Your task to perform on an android device: open chrome and create a bookmark for the current page Image 0: 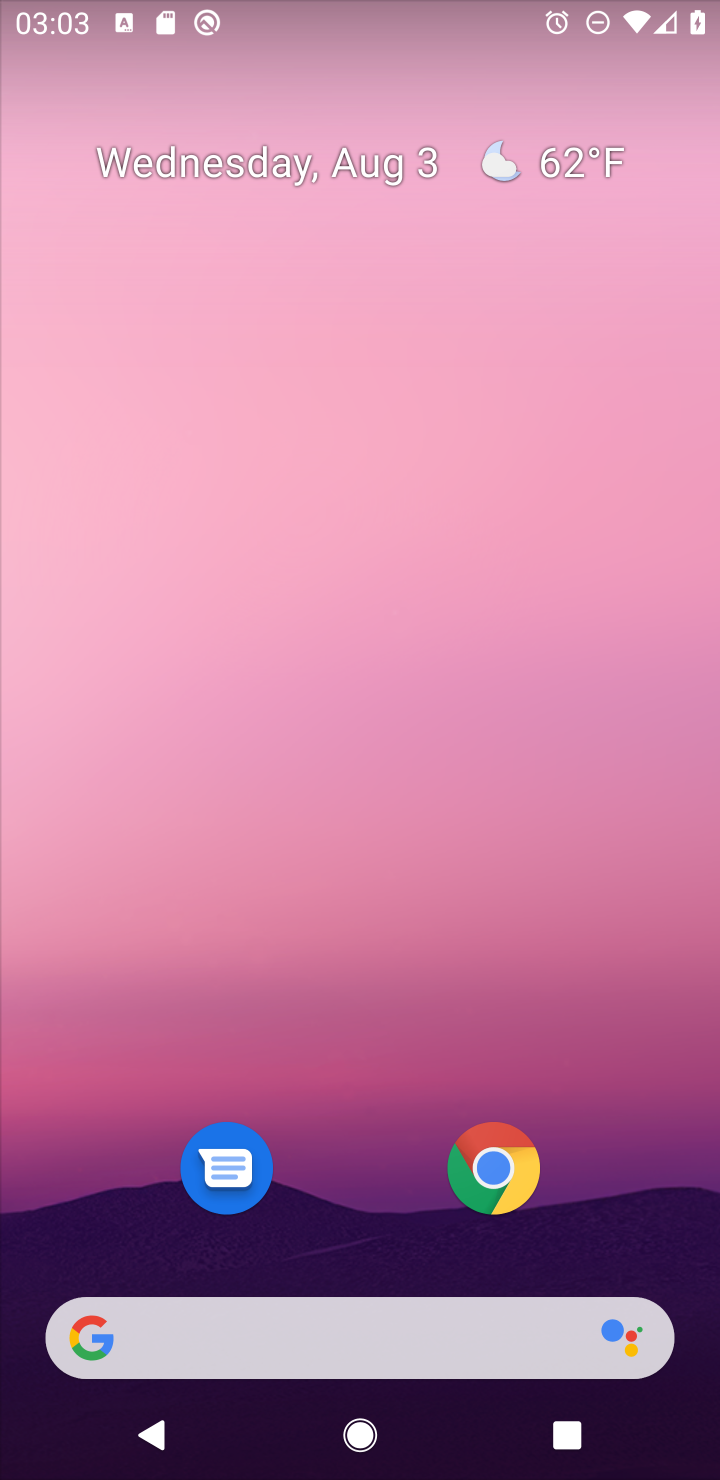
Step 0: click (501, 1165)
Your task to perform on an android device: open chrome and create a bookmark for the current page Image 1: 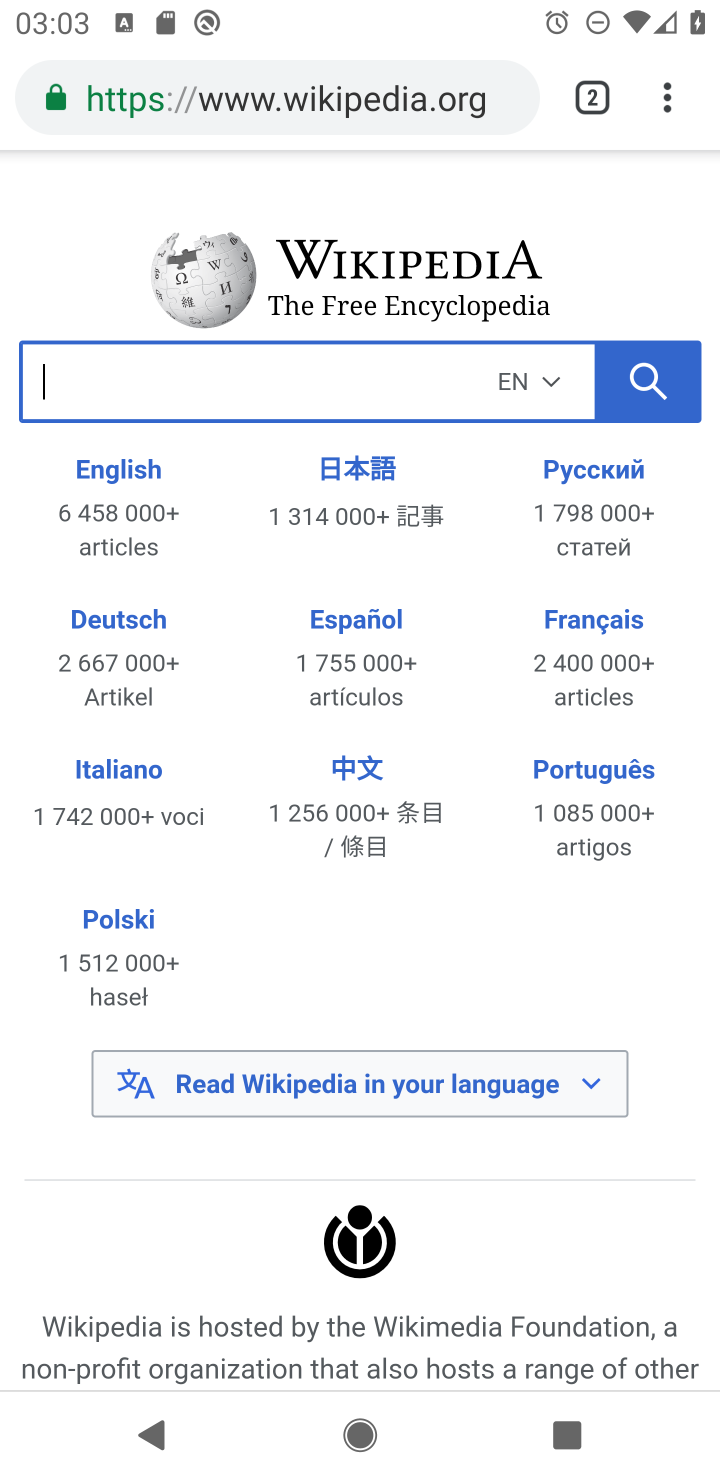
Step 1: click (664, 111)
Your task to perform on an android device: open chrome and create a bookmark for the current page Image 2: 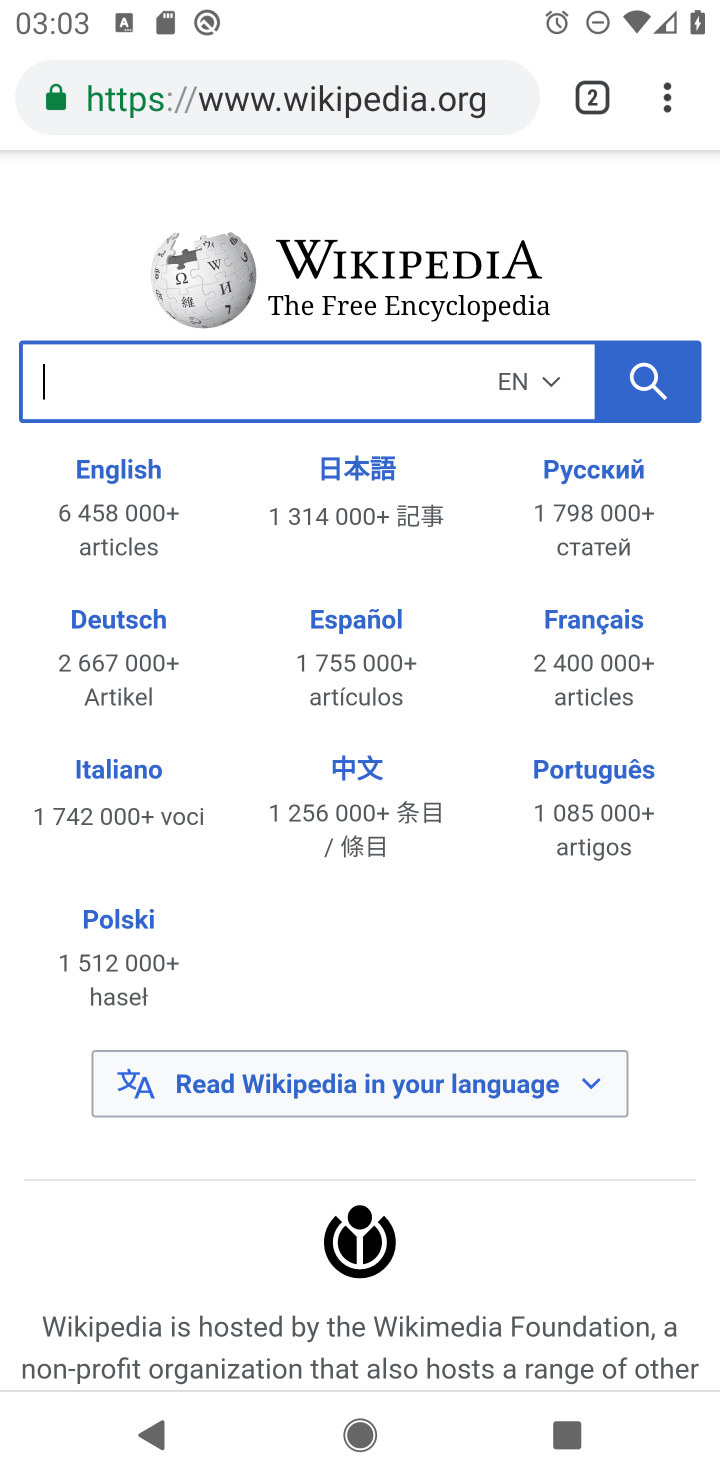
Step 2: click (657, 115)
Your task to perform on an android device: open chrome and create a bookmark for the current page Image 3: 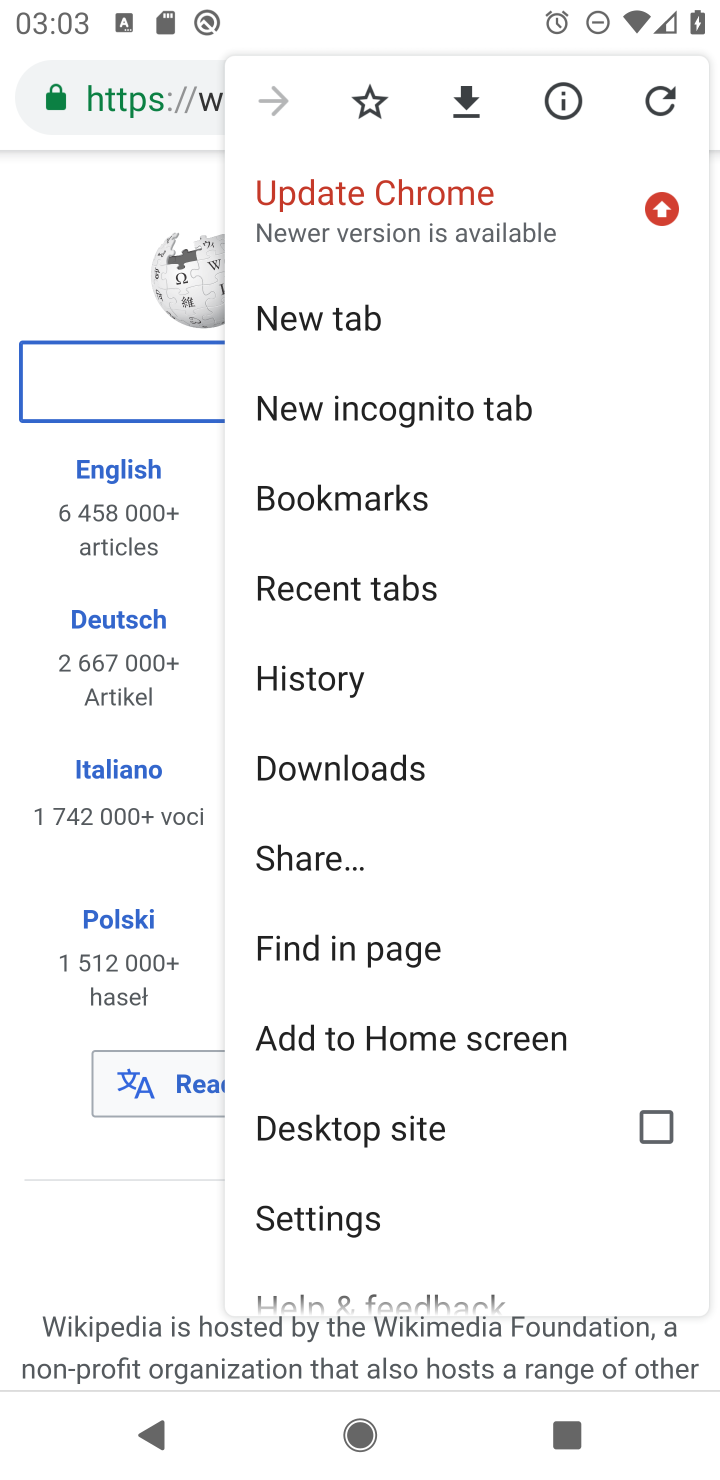
Step 3: click (367, 103)
Your task to perform on an android device: open chrome and create a bookmark for the current page Image 4: 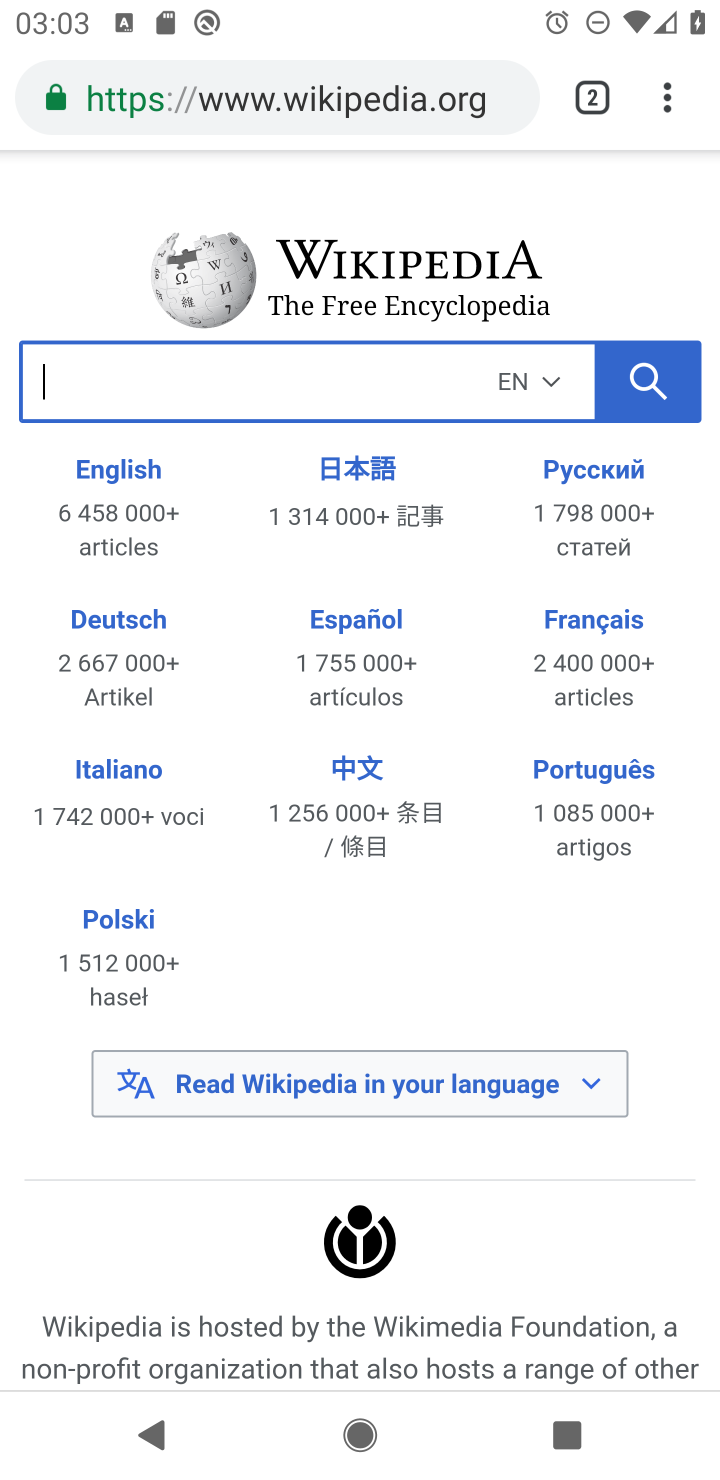
Step 4: task complete